Your task to perform on an android device: find snoozed emails in the gmail app Image 0: 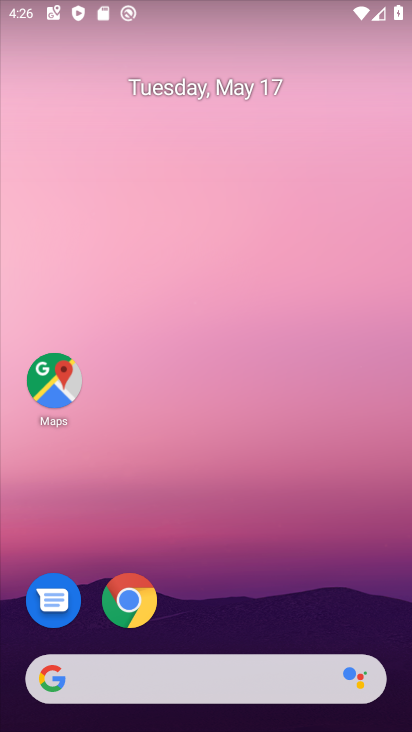
Step 0: drag from (386, 627) to (348, 17)
Your task to perform on an android device: find snoozed emails in the gmail app Image 1: 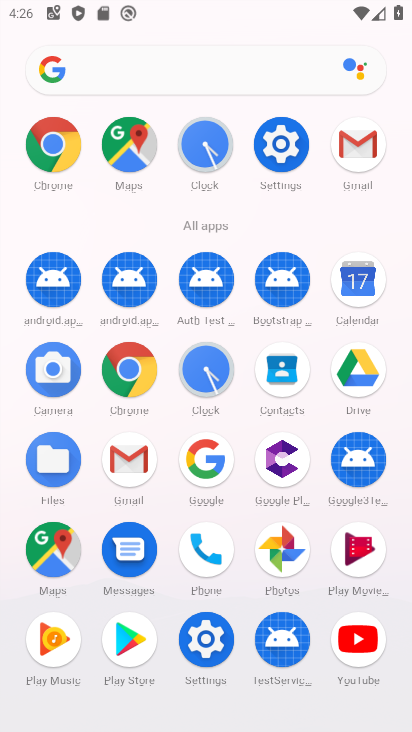
Step 1: click (128, 459)
Your task to perform on an android device: find snoozed emails in the gmail app Image 2: 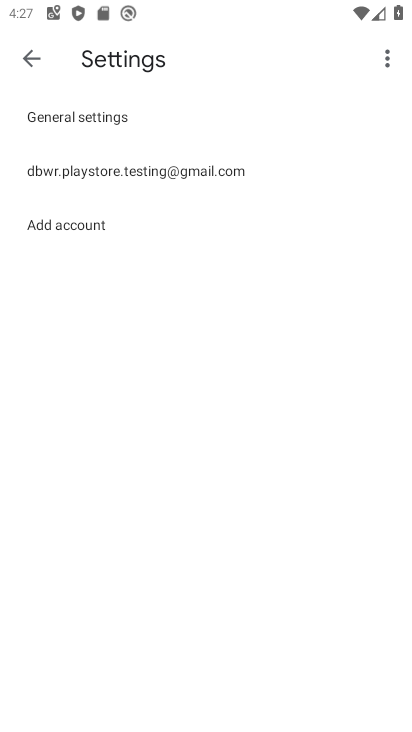
Step 2: press back button
Your task to perform on an android device: find snoozed emails in the gmail app Image 3: 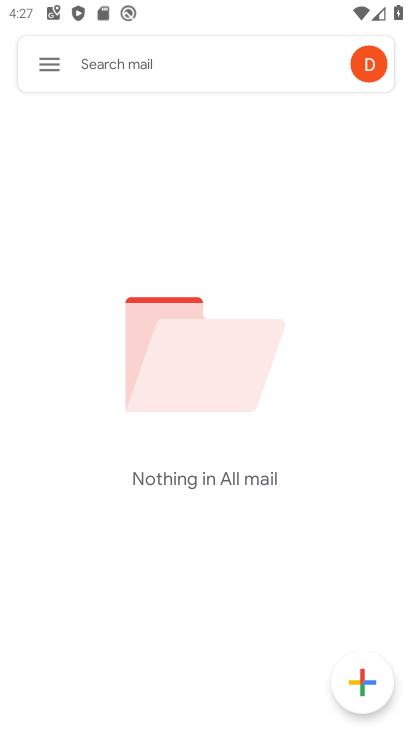
Step 3: click (44, 59)
Your task to perform on an android device: find snoozed emails in the gmail app Image 4: 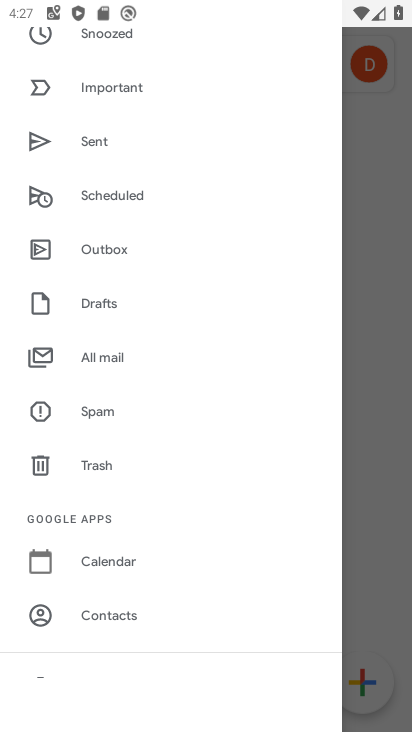
Step 4: drag from (214, 87) to (208, 374)
Your task to perform on an android device: find snoozed emails in the gmail app Image 5: 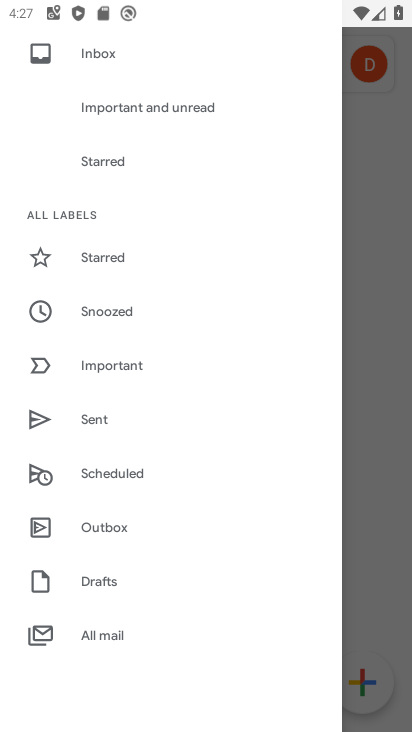
Step 5: click (107, 310)
Your task to perform on an android device: find snoozed emails in the gmail app Image 6: 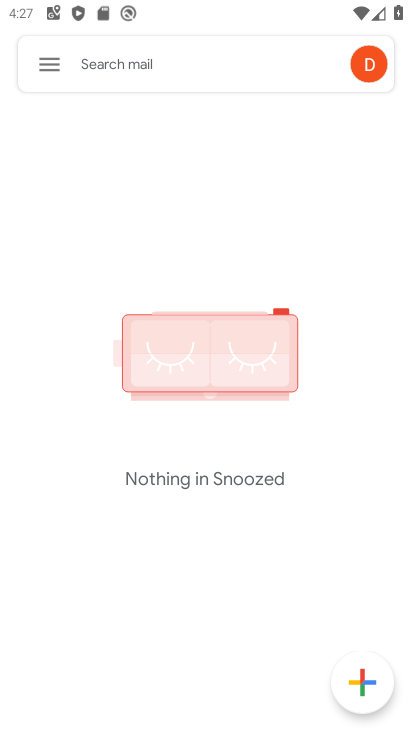
Step 6: task complete